Your task to perform on an android device: turn off notifications in google photos Image 0: 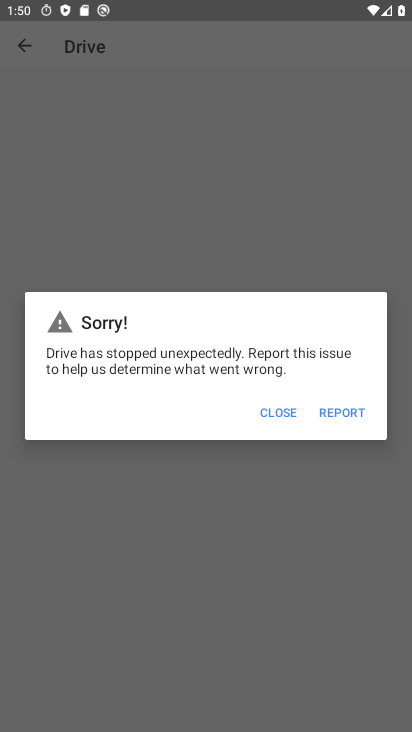
Step 0: press home button
Your task to perform on an android device: turn off notifications in google photos Image 1: 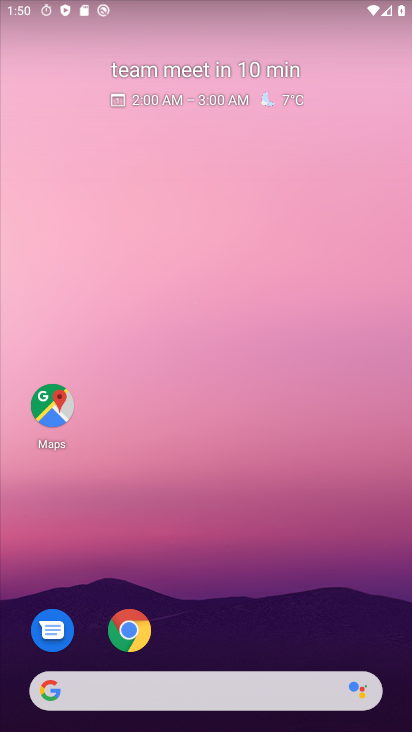
Step 1: drag from (249, 672) to (234, 230)
Your task to perform on an android device: turn off notifications in google photos Image 2: 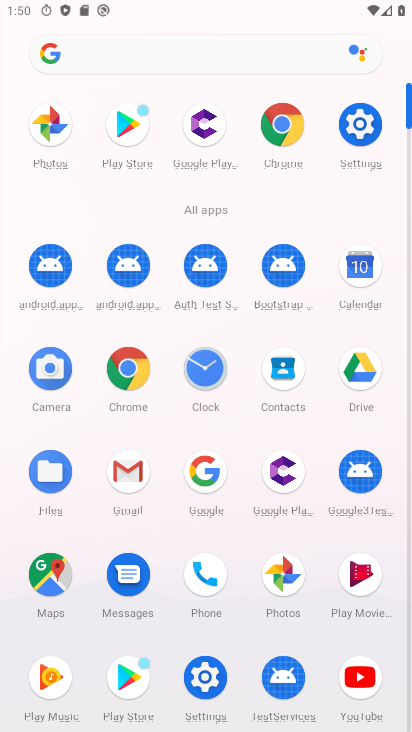
Step 2: click (280, 558)
Your task to perform on an android device: turn off notifications in google photos Image 3: 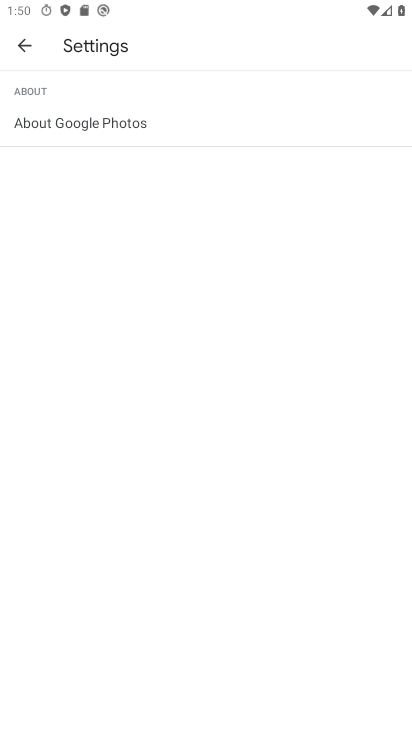
Step 3: click (33, 48)
Your task to perform on an android device: turn off notifications in google photos Image 4: 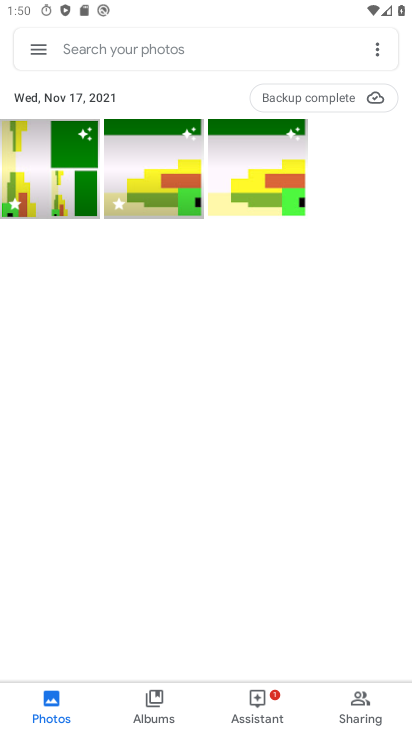
Step 4: click (37, 52)
Your task to perform on an android device: turn off notifications in google photos Image 5: 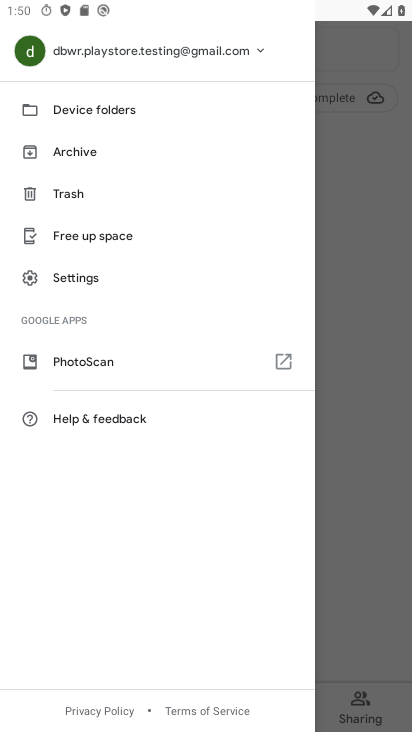
Step 5: click (65, 267)
Your task to perform on an android device: turn off notifications in google photos Image 6: 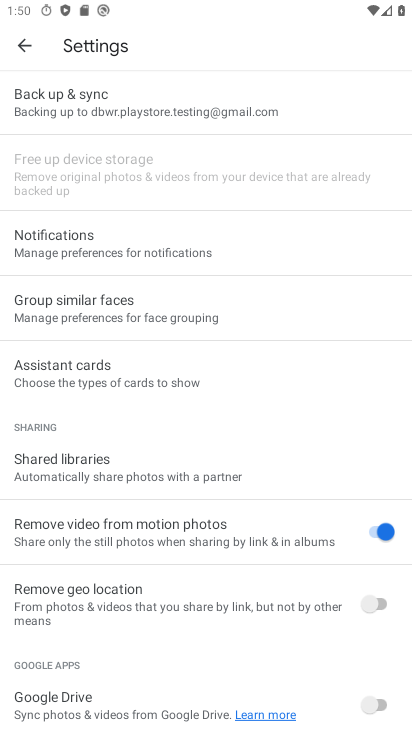
Step 6: click (82, 241)
Your task to perform on an android device: turn off notifications in google photos Image 7: 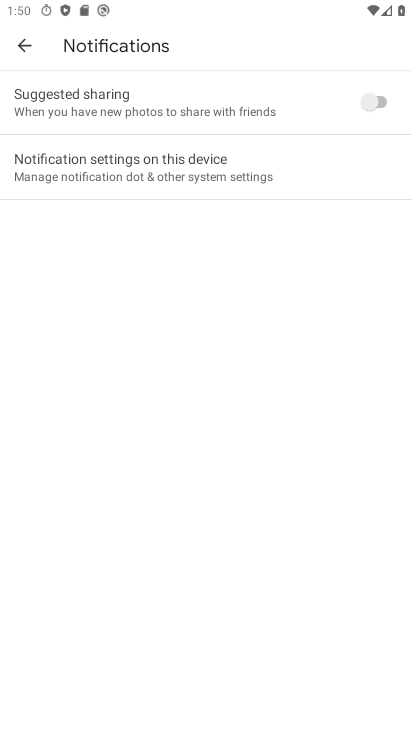
Step 7: click (163, 166)
Your task to perform on an android device: turn off notifications in google photos Image 8: 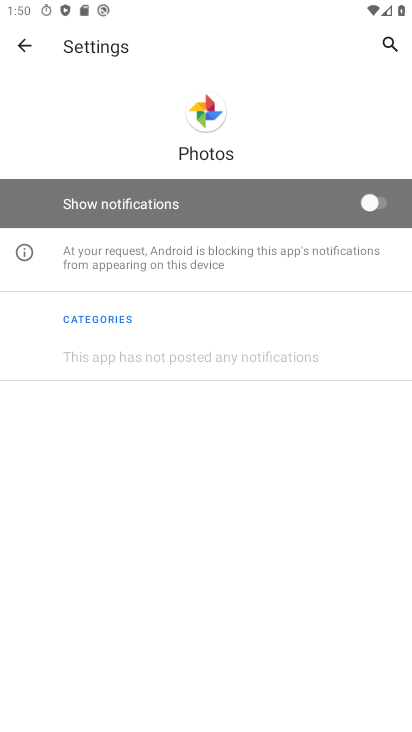
Step 8: task complete